Your task to perform on an android device: Open my contact list Image 0: 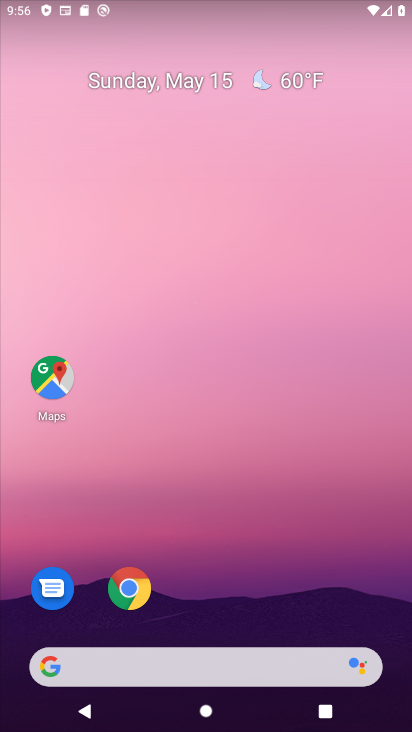
Step 0: drag from (257, 627) to (264, 254)
Your task to perform on an android device: Open my contact list Image 1: 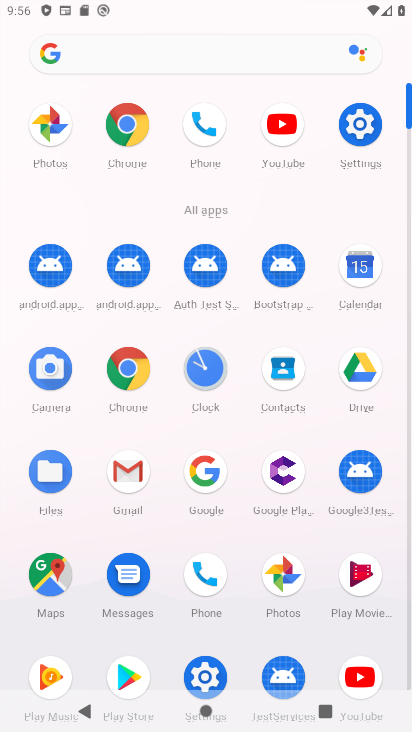
Step 1: click (282, 367)
Your task to perform on an android device: Open my contact list Image 2: 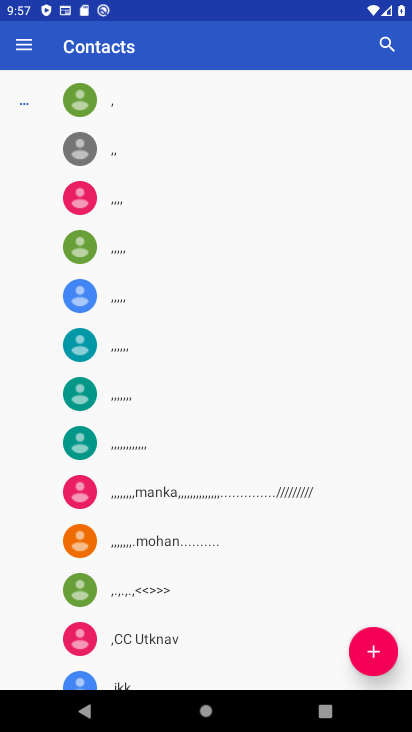
Step 2: task complete